Your task to perform on an android device: toggle priority inbox in the gmail app Image 0: 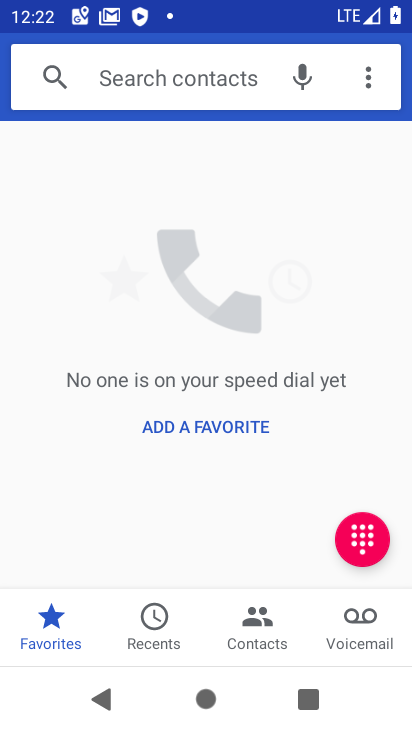
Step 0: press home button
Your task to perform on an android device: toggle priority inbox in the gmail app Image 1: 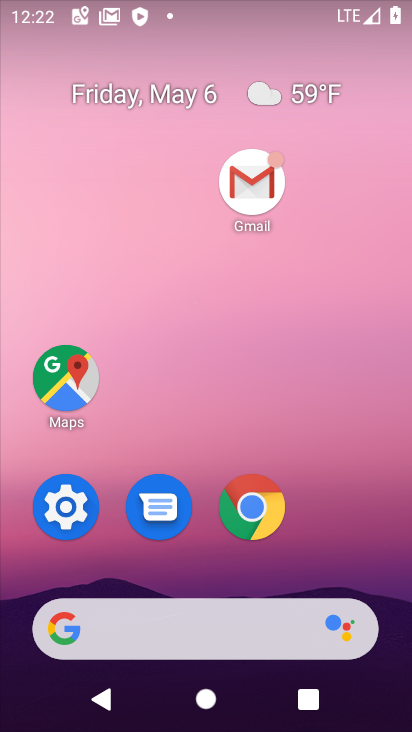
Step 1: click (258, 179)
Your task to perform on an android device: toggle priority inbox in the gmail app Image 2: 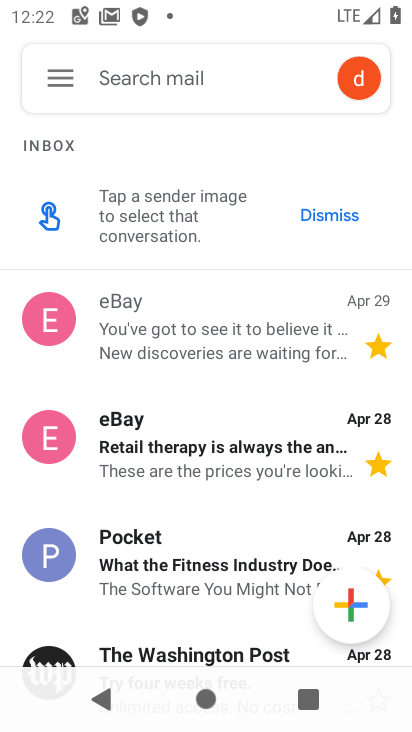
Step 2: click (60, 64)
Your task to perform on an android device: toggle priority inbox in the gmail app Image 3: 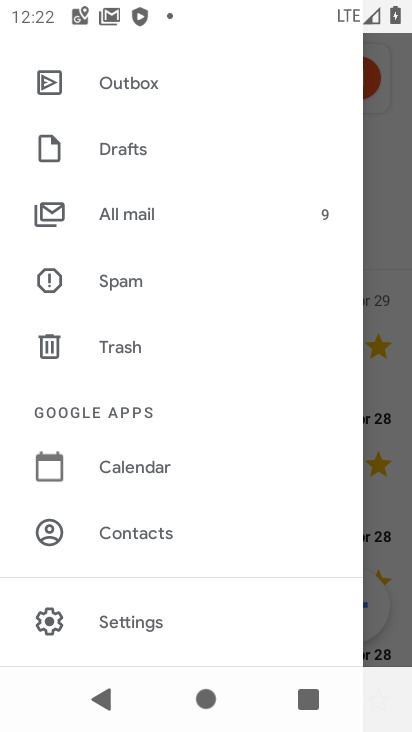
Step 3: click (141, 623)
Your task to perform on an android device: toggle priority inbox in the gmail app Image 4: 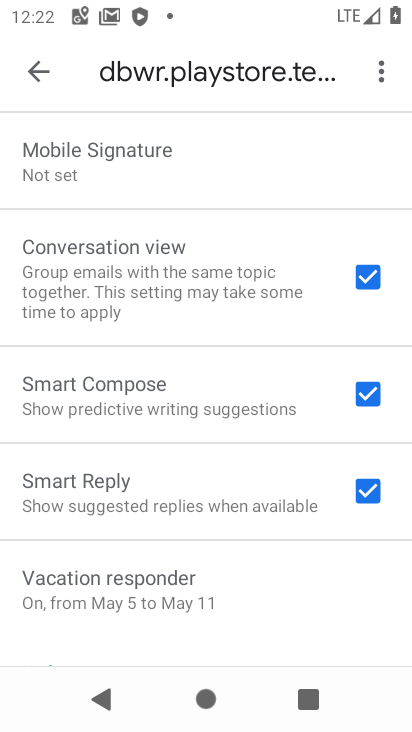
Step 4: drag from (154, 153) to (211, 529)
Your task to perform on an android device: toggle priority inbox in the gmail app Image 5: 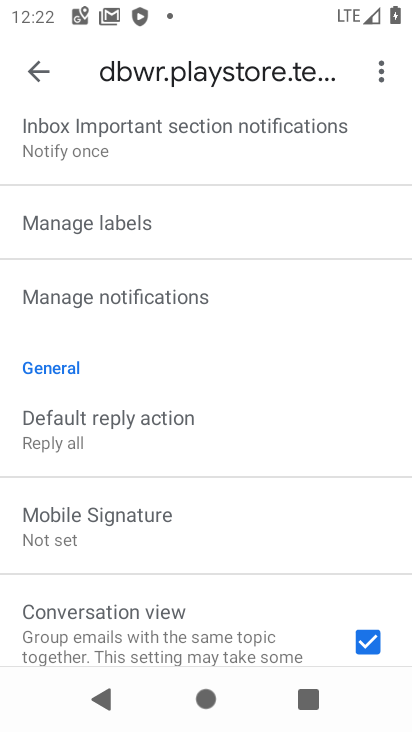
Step 5: drag from (263, 194) to (331, 718)
Your task to perform on an android device: toggle priority inbox in the gmail app Image 6: 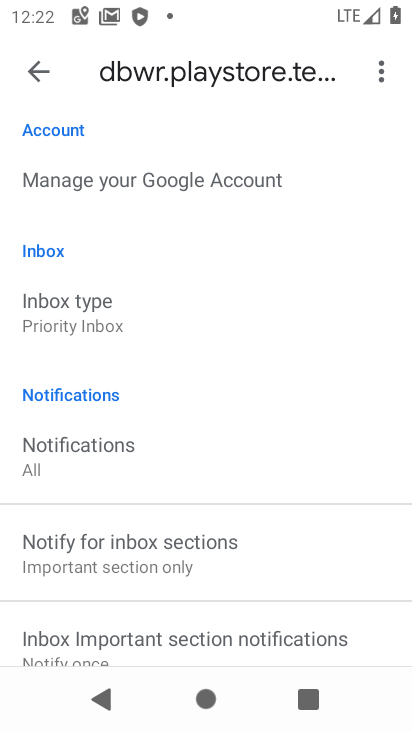
Step 6: click (81, 302)
Your task to perform on an android device: toggle priority inbox in the gmail app Image 7: 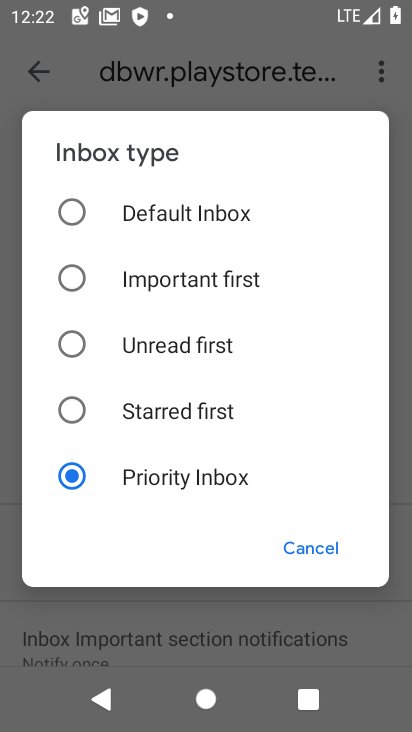
Step 7: click (77, 212)
Your task to perform on an android device: toggle priority inbox in the gmail app Image 8: 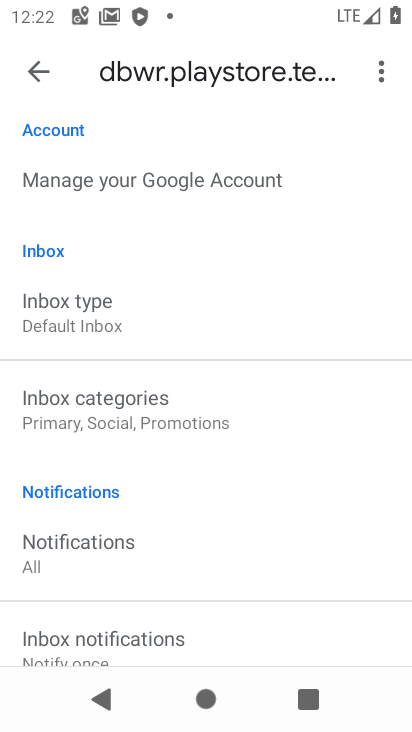
Step 8: task complete